Your task to perform on an android device: Open maps Image 0: 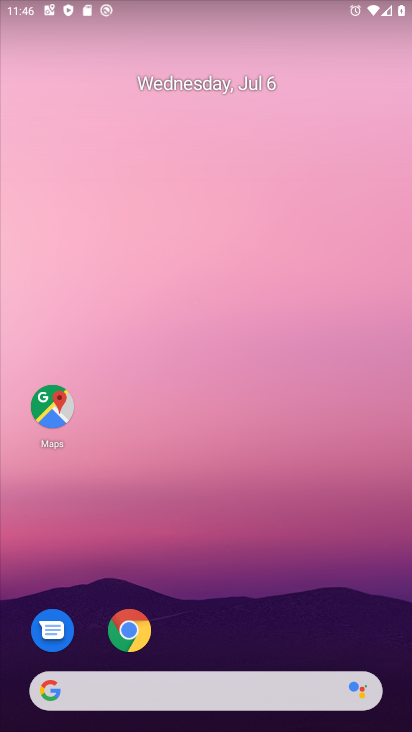
Step 0: click (45, 410)
Your task to perform on an android device: Open maps Image 1: 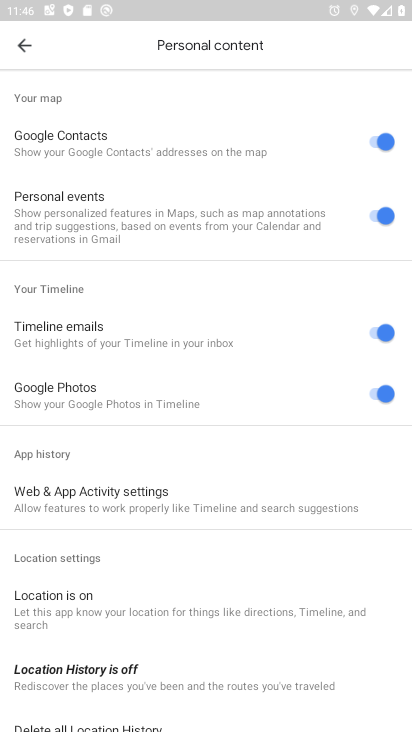
Step 1: click (20, 54)
Your task to perform on an android device: Open maps Image 2: 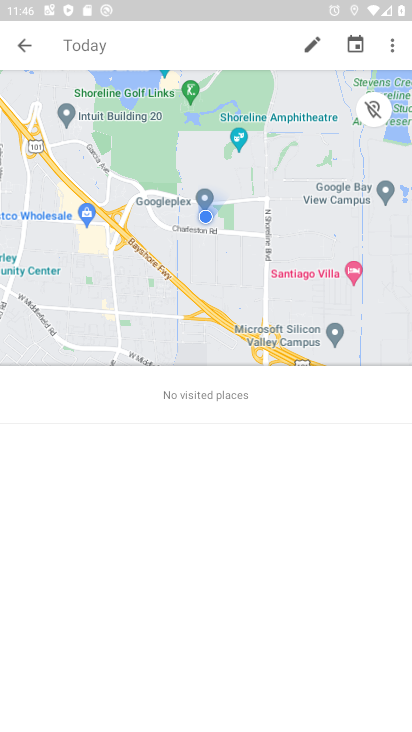
Step 2: task complete